Your task to perform on an android device: Search for Mexican restaurants on Maps Image 0: 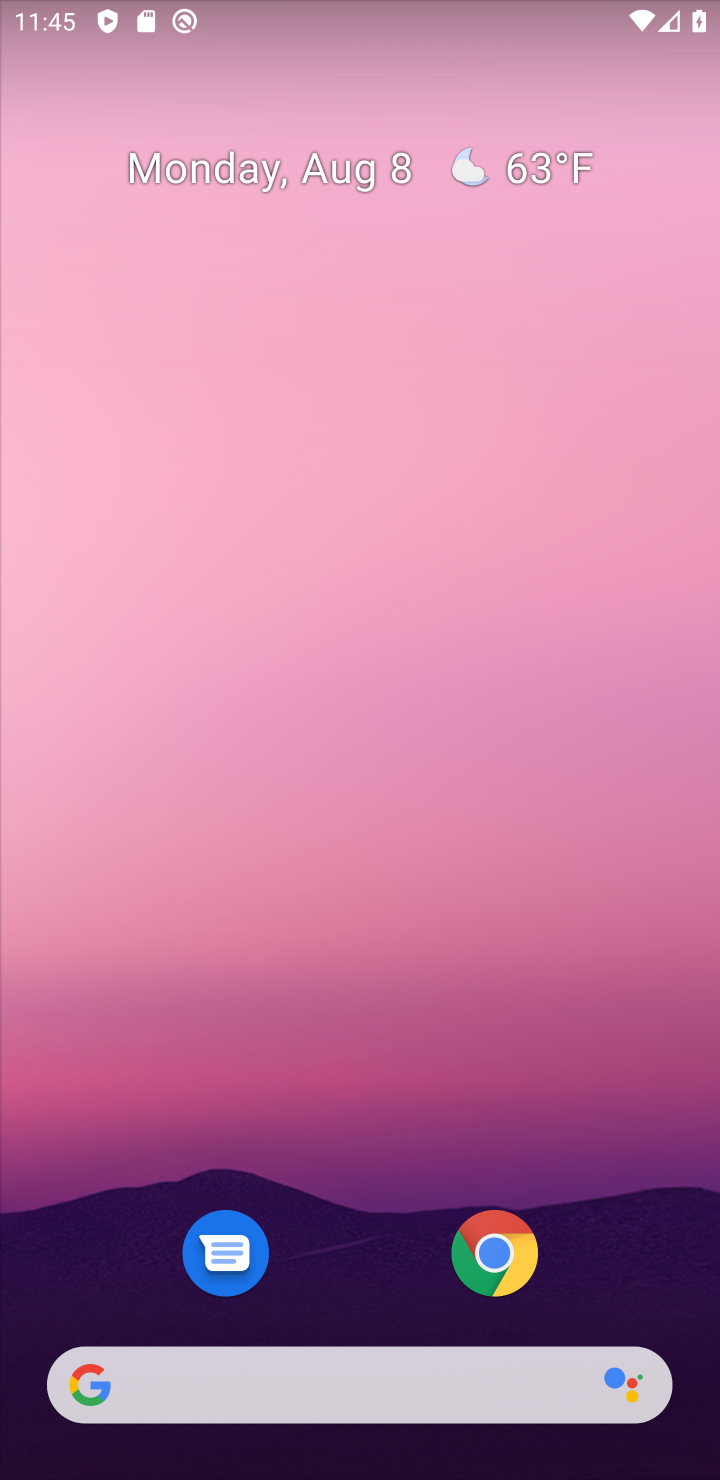
Step 0: drag from (477, 658) to (311, 72)
Your task to perform on an android device: Search for Mexican restaurants on Maps Image 1: 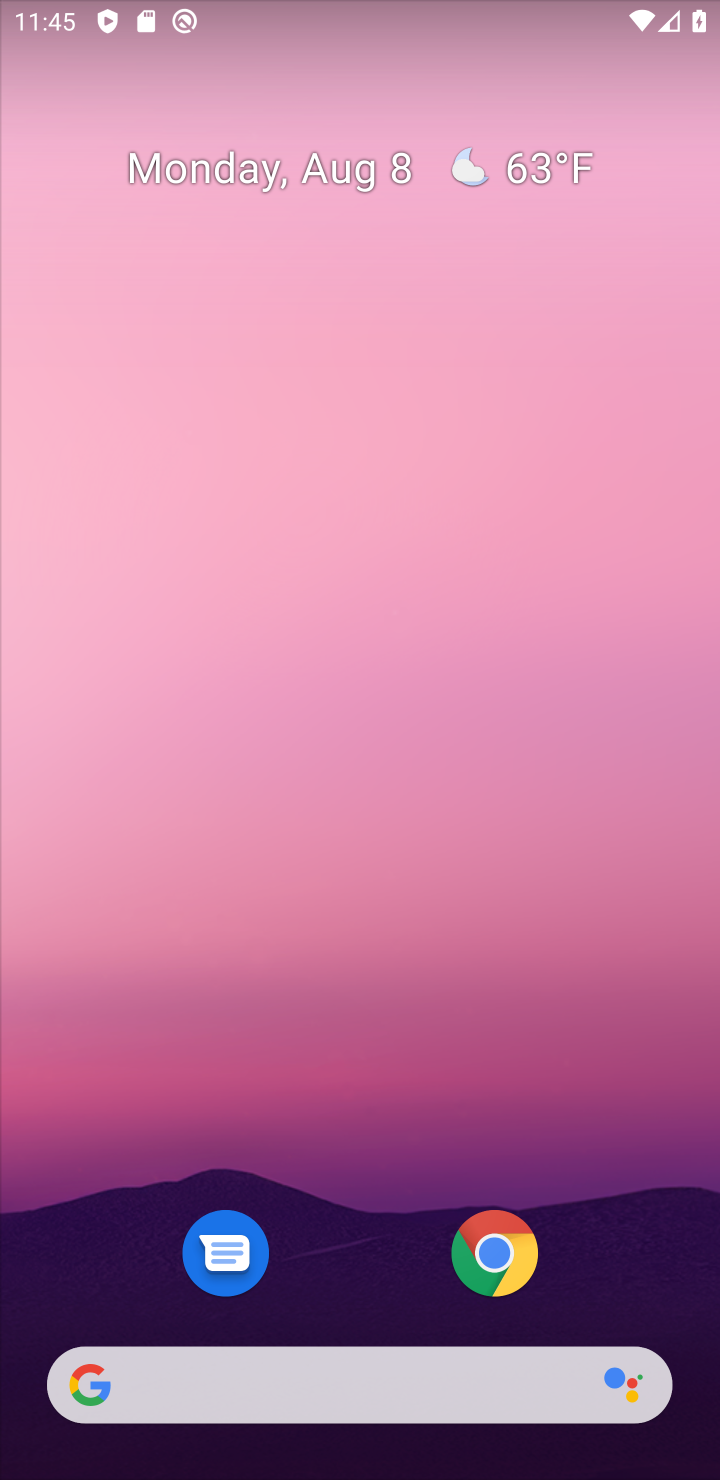
Step 1: drag from (591, 1138) to (268, 76)
Your task to perform on an android device: Search for Mexican restaurants on Maps Image 2: 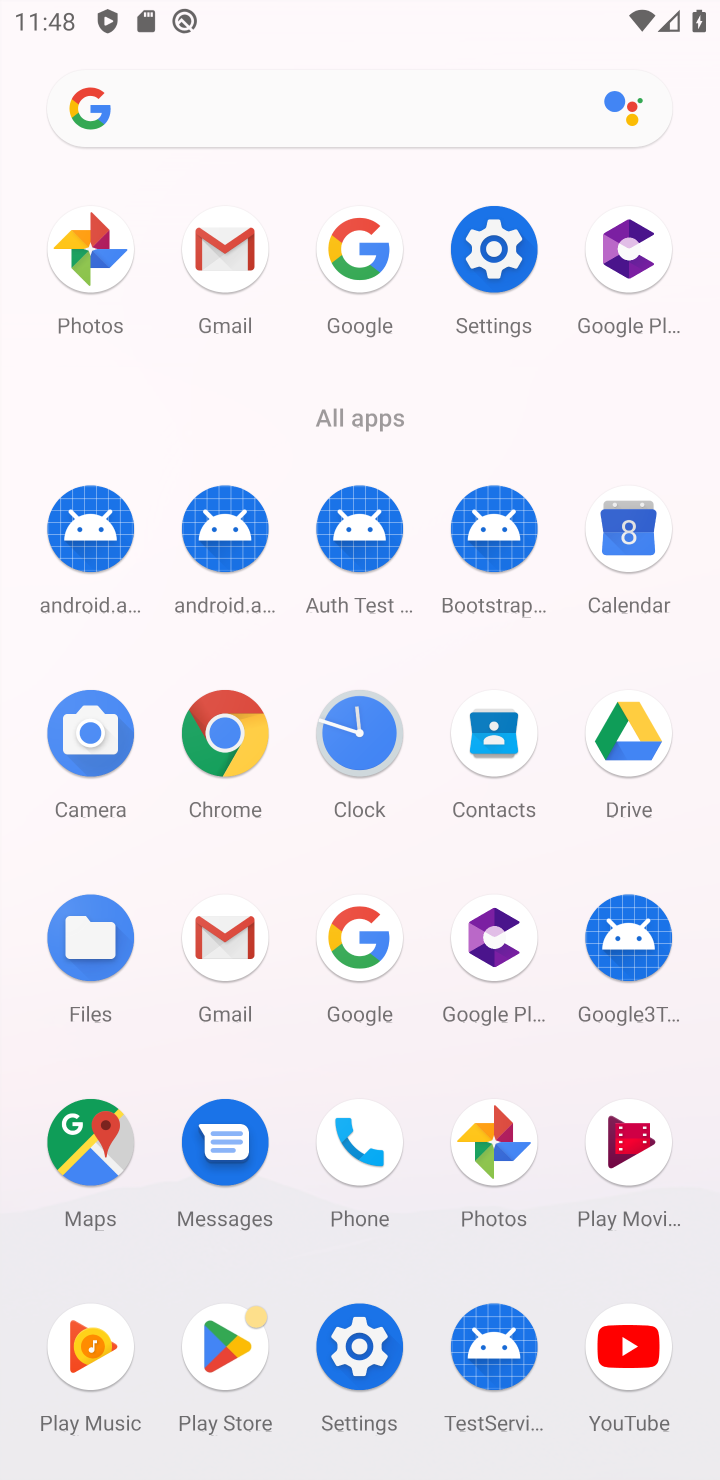
Step 2: click (121, 1096)
Your task to perform on an android device: Search for Mexican restaurants on Maps Image 3: 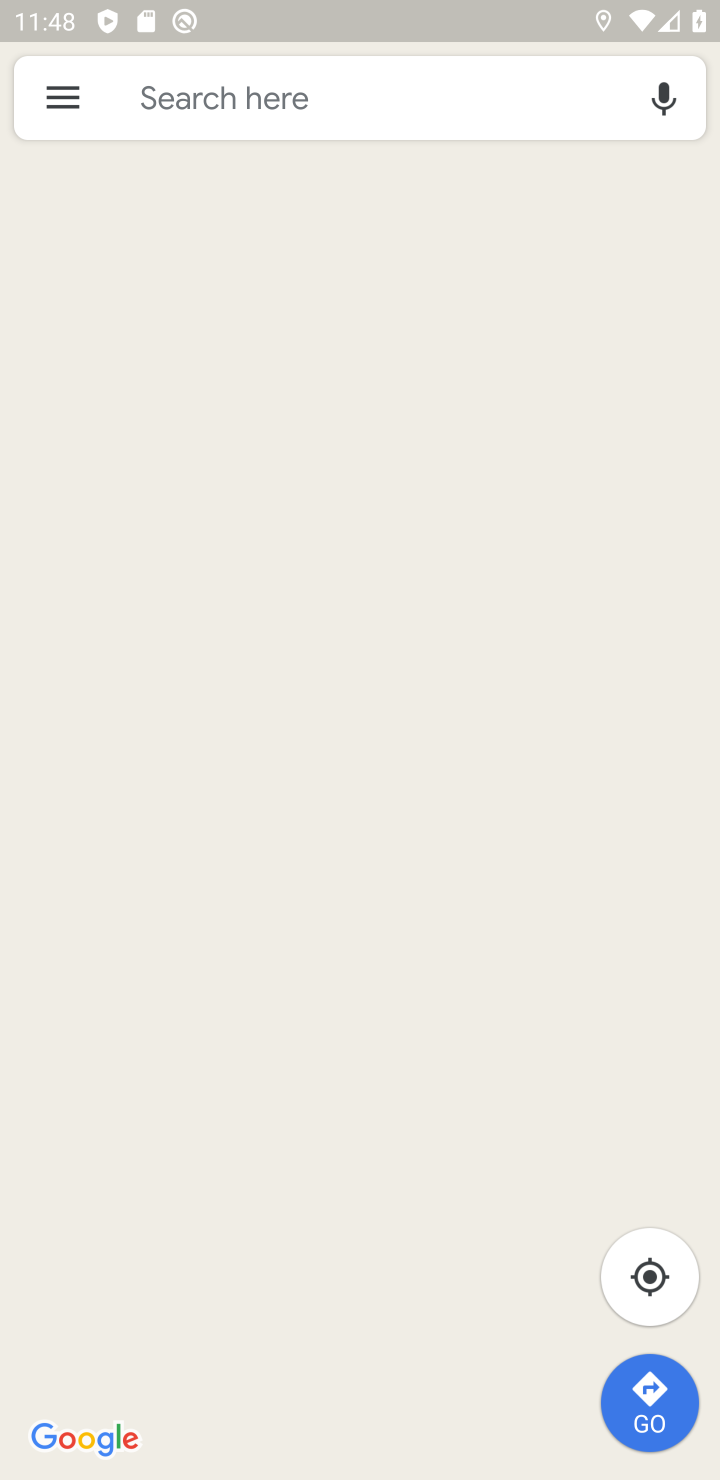
Step 3: click (324, 111)
Your task to perform on an android device: Search for Mexican restaurants on Maps Image 4: 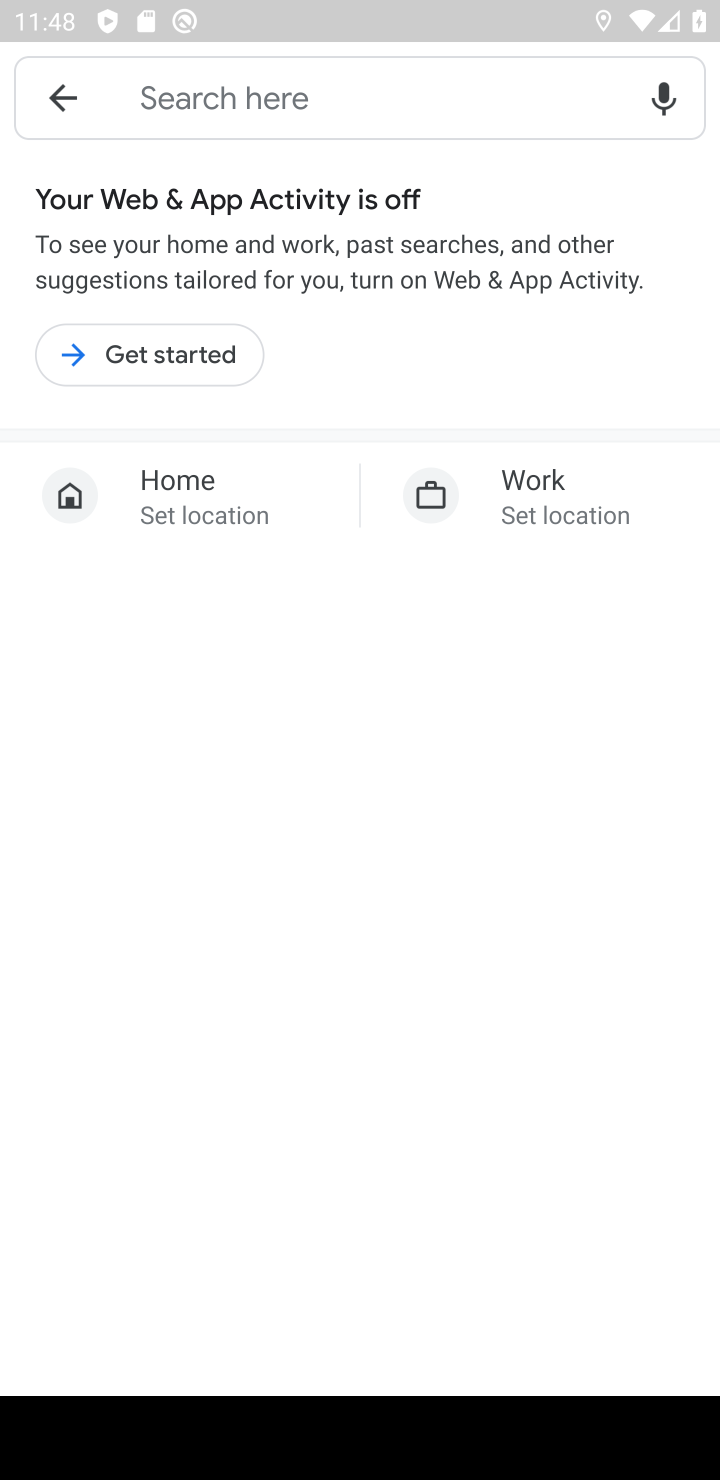
Step 4: click (177, 350)
Your task to perform on an android device: Search for Mexican restaurants on Maps Image 5: 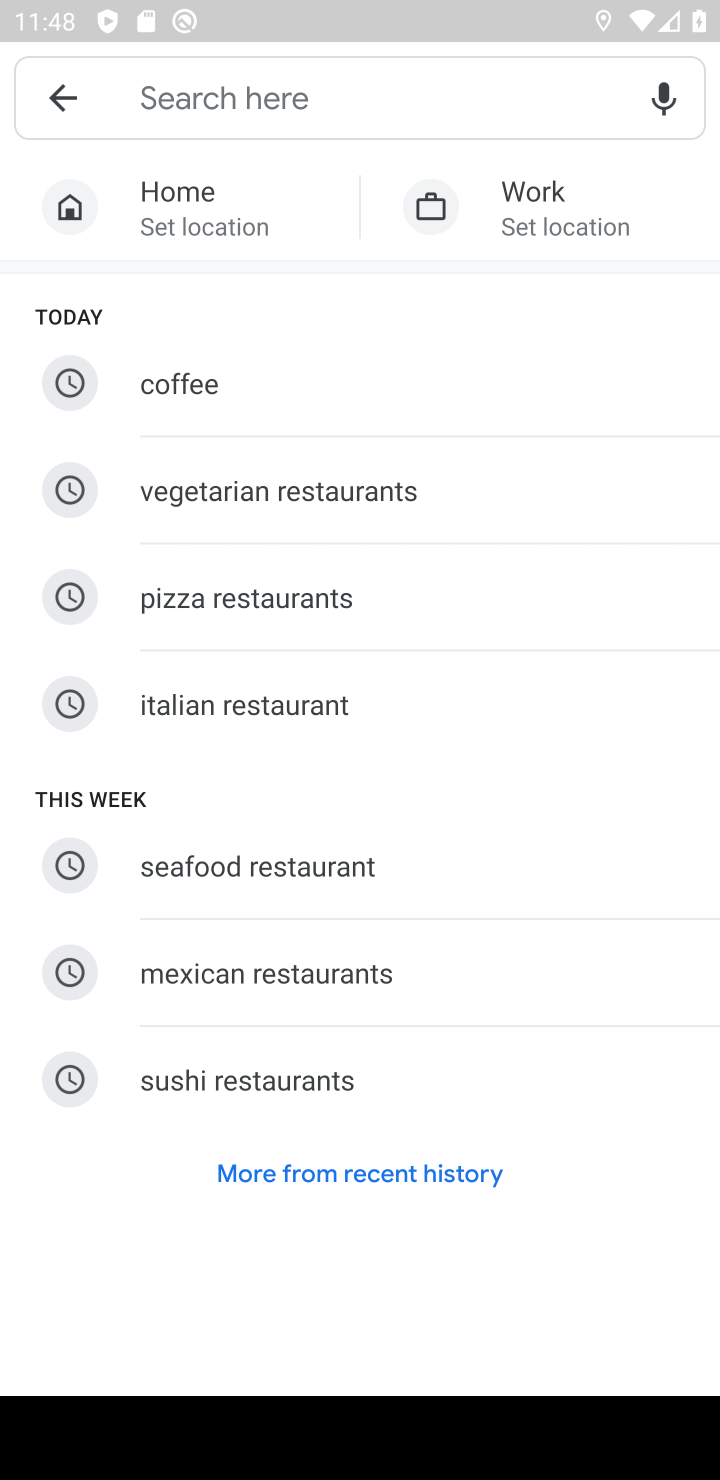
Step 5: click (200, 957)
Your task to perform on an android device: Search for Mexican restaurants on Maps Image 6: 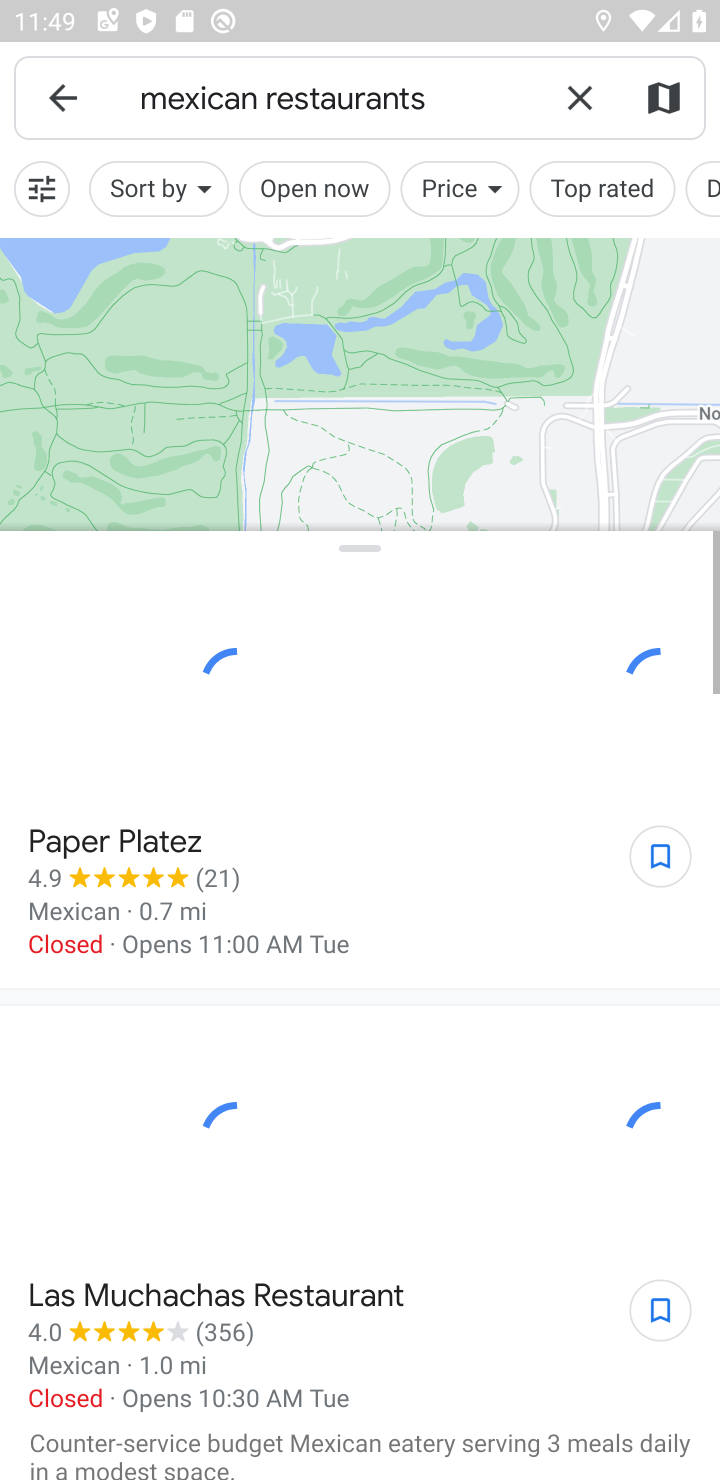
Step 6: task complete